Your task to perform on an android device: add a contact in the contacts app Image 0: 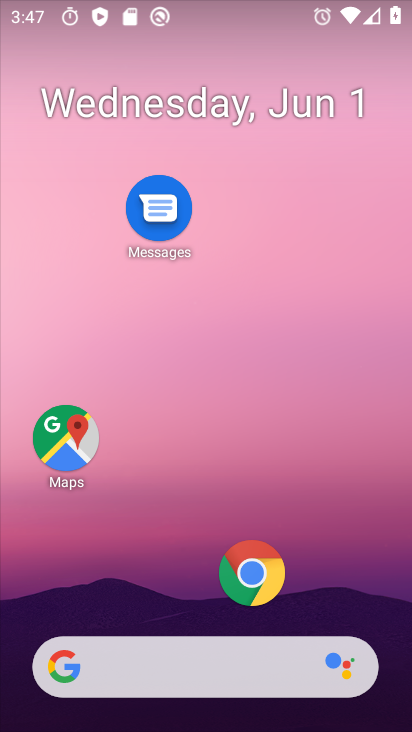
Step 0: drag from (157, 607) to (157, 271)
Your task to perform on an android device: add a contact in the contacts app Image 1: 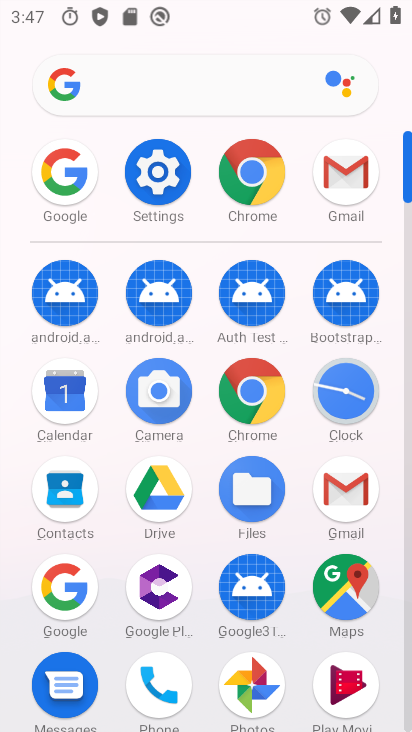
Step 1: click (70, 503)
Your task to perform on an android device: add a contact in the contacts app Image 2: 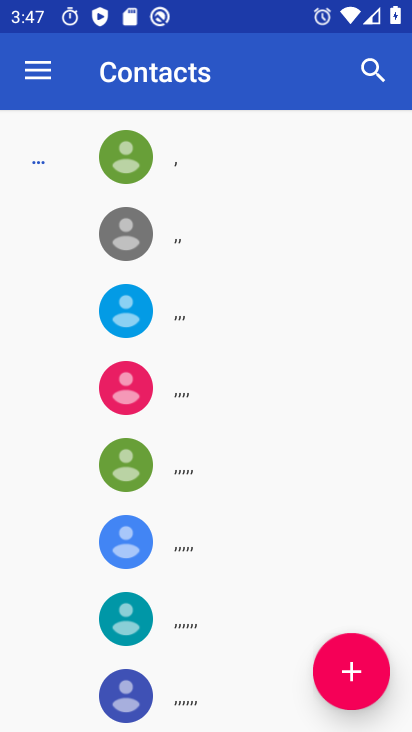
Step 2: click (363, 667)
Your task to perform on an android device: add a contact in the contacts app Image 3: 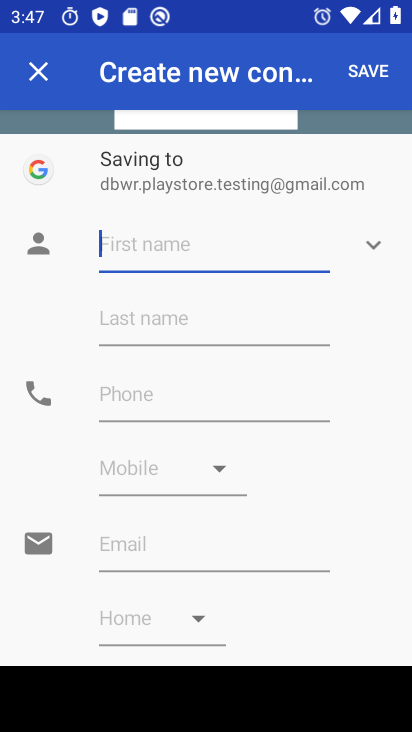
Step 3: type "dfbfgxh"
Your task to perform on an android device: add a contact in the contacts app Image 4: 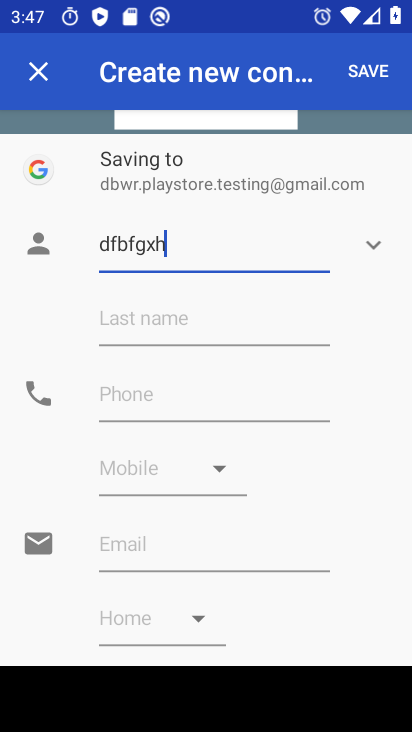
Step 4: click (146, 400)
Your task to perform on an android device: add a contact in the contacts app Image 5: 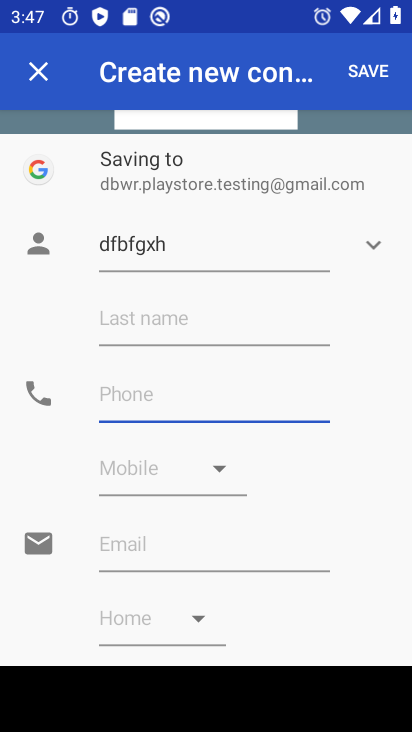
Step 5: type "8675474575"
Your task to perform on an android device: add a contact in the contacts app Image 6: 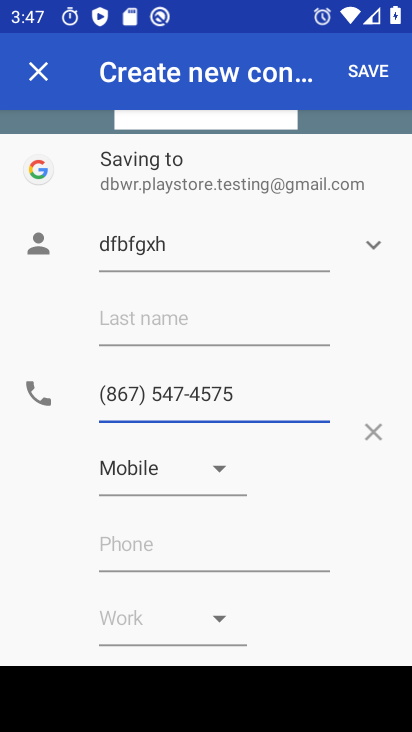
Step 6: click (351, 72)
Your task to perform on an android device: add a contact in the contacts app Image 7: 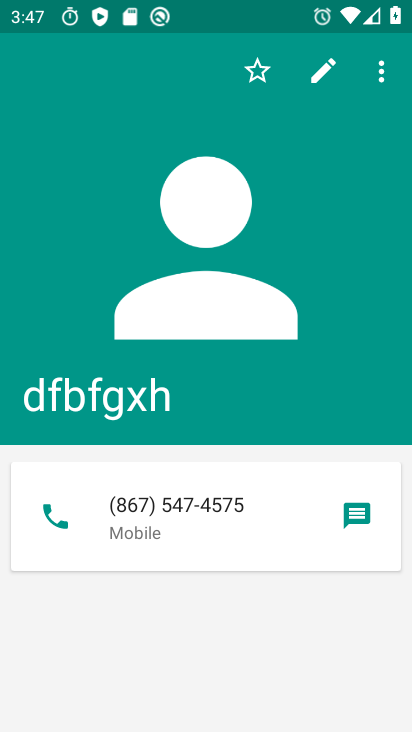
Step 7: task complete